Your task to perform on an android device: toggle notifications settings in the gmail app Image 0: 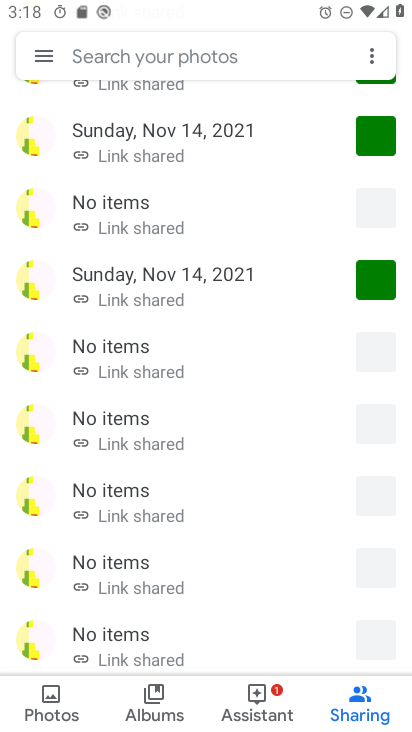
Step 0: drag from (205, 190) to (53, 728)
Your task to perform on an android device: toggle notifications settings in the gmail app Image 1: 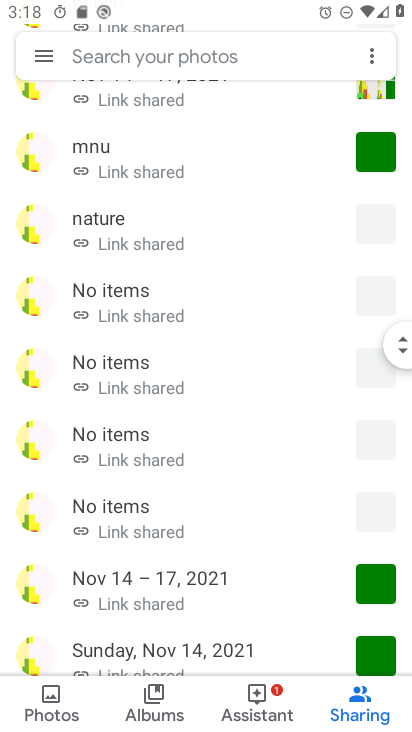
Step 1: click (46, 720)
Your task to perform on an android device: toggle notifications settings in the gmail app Image 2: 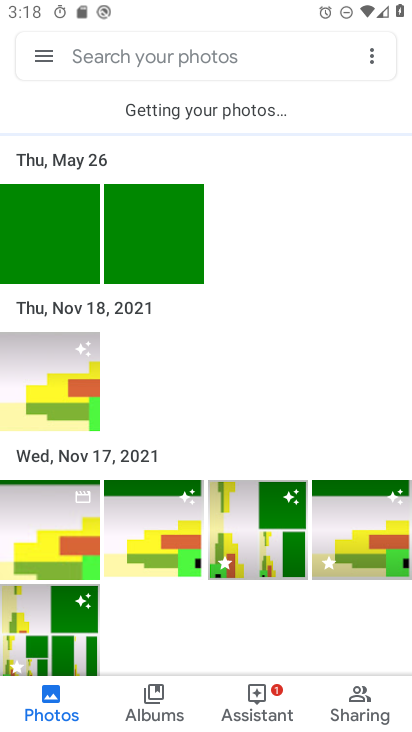
Step 2: click (380, 59)
Your task to perform on an android device: toggle notifications settings in the gmail app Image 3: 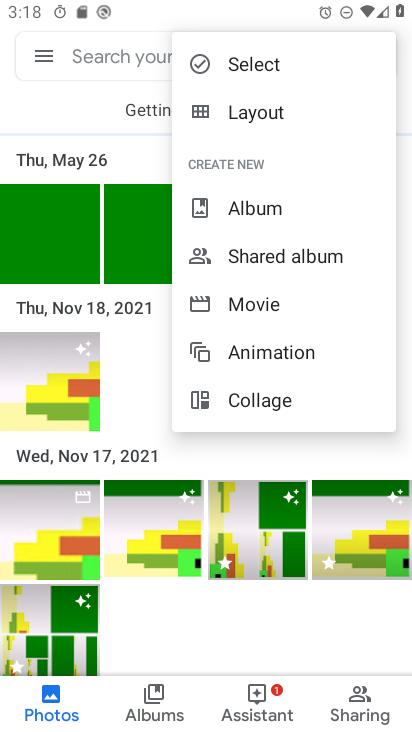
Step 3: click (202, 450)
Your task to perform on an android device: toggle notifications settings in the gmail app Image 4: 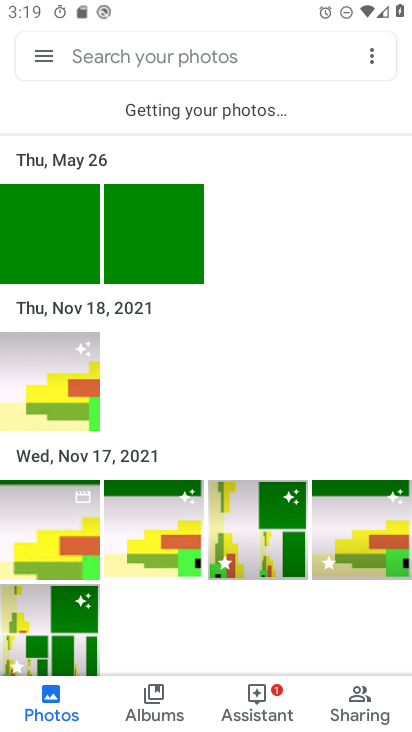
Step 4: click (51, 55)
Your task to perform on an android device: toggle notifications settings in the gmail app Image 5: 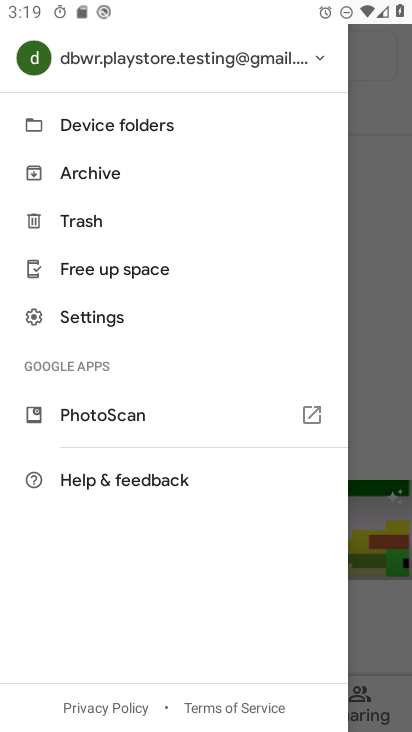
Step 5: click (121, 331)
Your task to perform on an android device: toggle notifications settings in the gmail app Image 6: 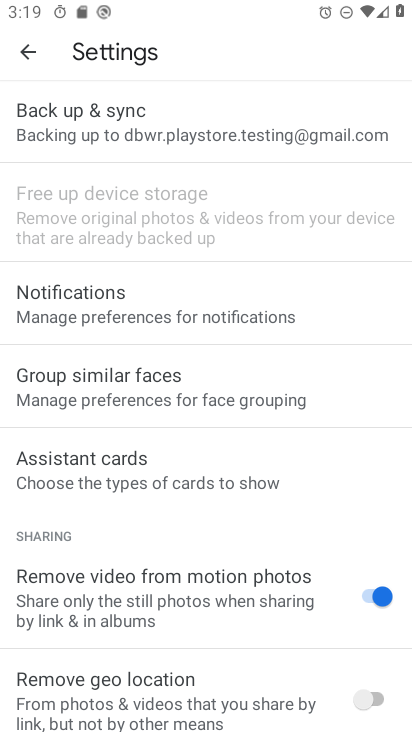
Step 6: click (211, 329)
Your task to perform on an android device: toggle notifications settings in the gmail app Image 7: 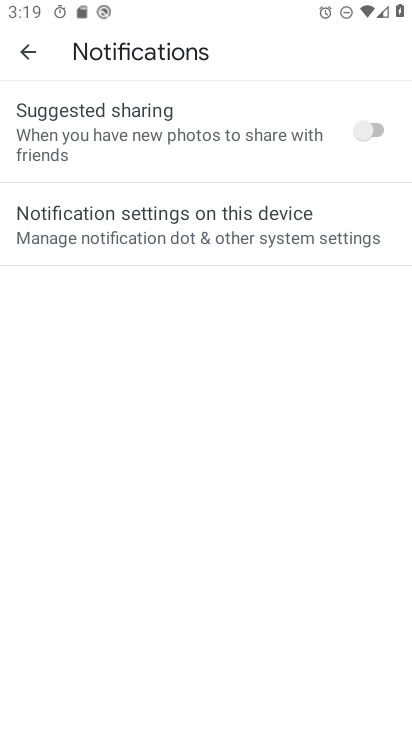
Step 7: click (285, 222)
Your task to perform on an android device: toggle notifications settings in the gmail app Image 8: 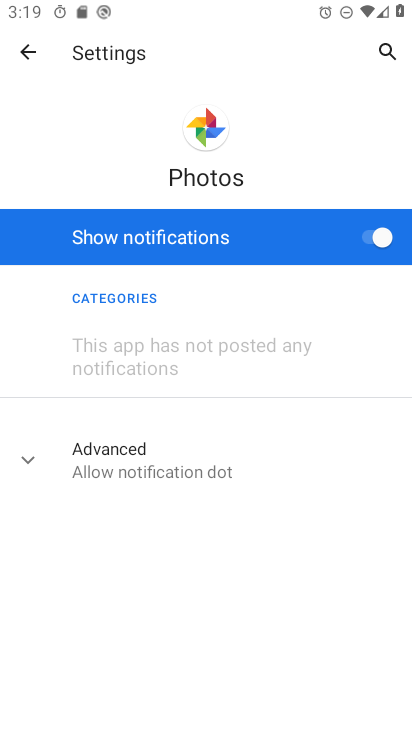
Step 8: click (370, 238)
Your task to perform on an android device: toggle notifications settings in the gmail app Image 9: 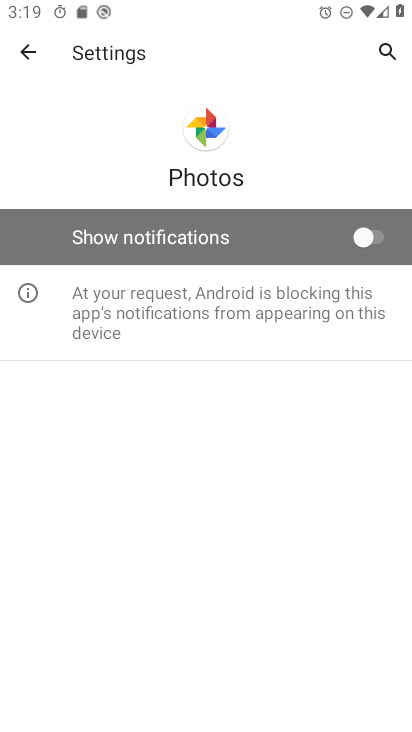
Step 9: task complete